Your task to perform on an android device: toggle translation in the chrome app Image 0: 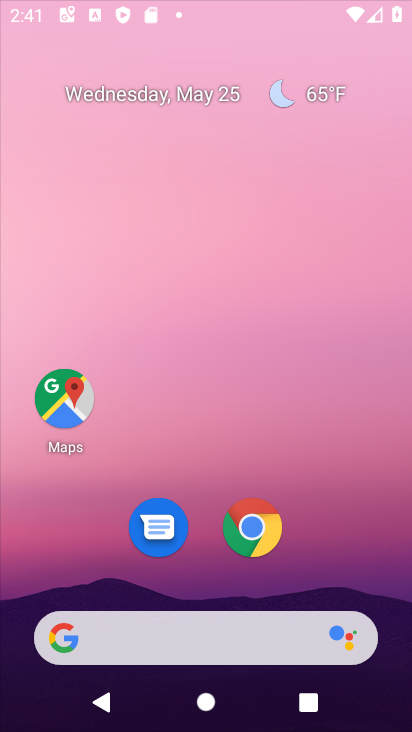
Step 0: press home button
Your task to perform on an android device: toggle translation in the chrome app Image 1: 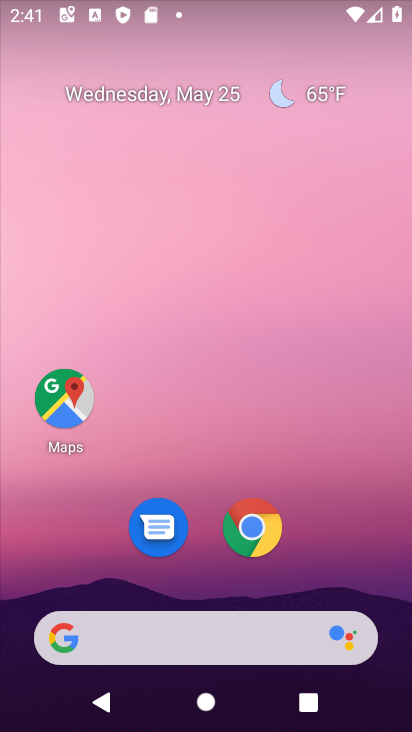
Step 1: drag from (302, 563) to (288, 96)
Your task to perform on an android device: toggle translation in the chrome app Image 2: 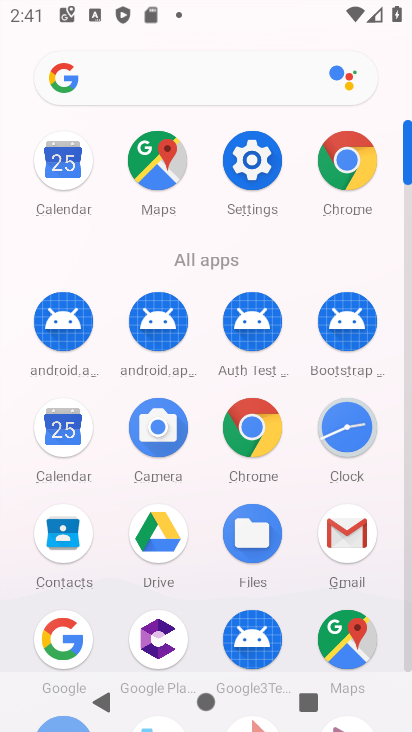
Step 2: click (257, 437)
Your task to perform on an android device: toggle translation in the chrome app Image 3: 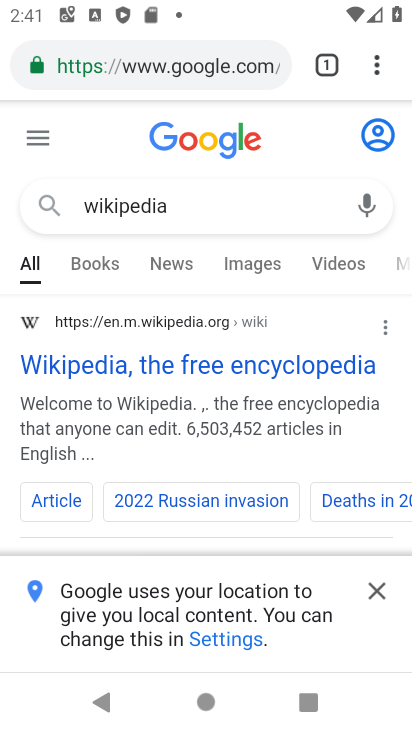
Step 3: click (384, 60)
Your task to perform on an android device: toggle translation in the chrome app Image 4: 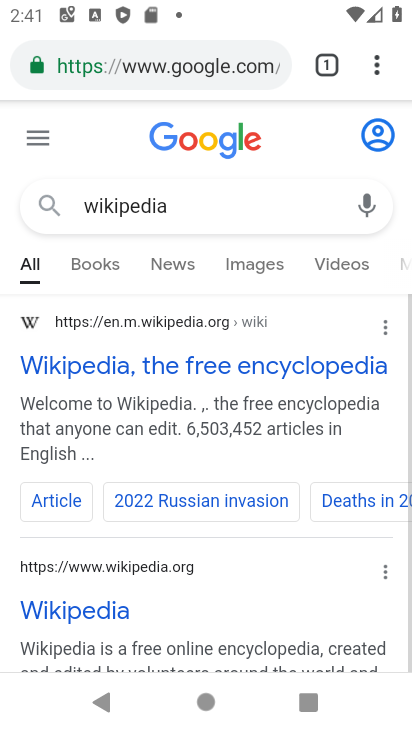
Step 4: drag from (371, 57) to (186, 579)
Your task to perform on an android device: toggle translation in the chrome app Image 5: 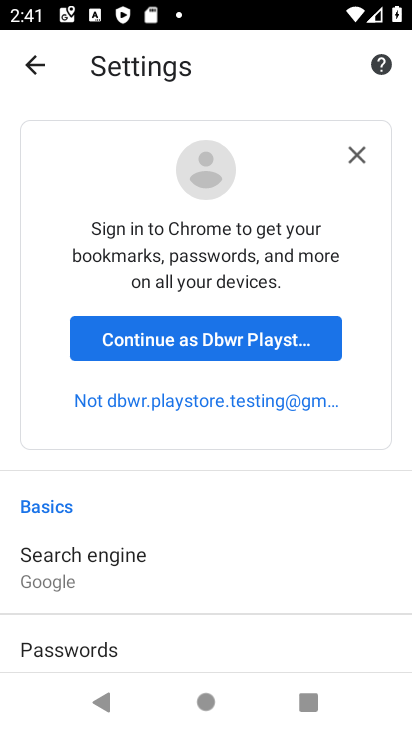
Step 5: drag from (199, 630) to (269, 9)
Your task to perform on an android device: toggle translation in the chrome app Image 6: 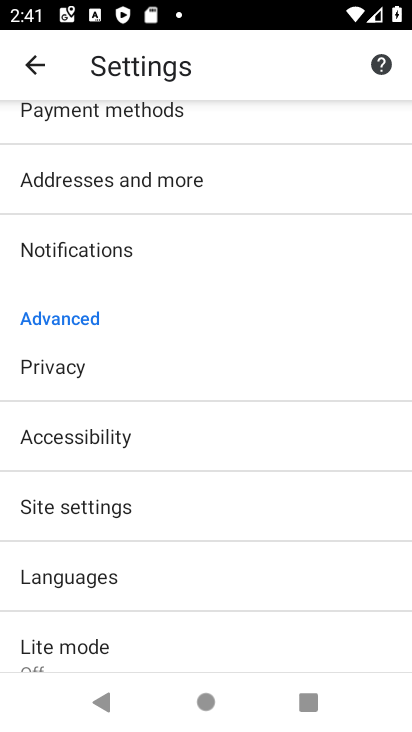
Step 6: drag from (220, 496) to (259, 82)
Your task to perform on an android device: toggle translation in the chrome app Image 7: 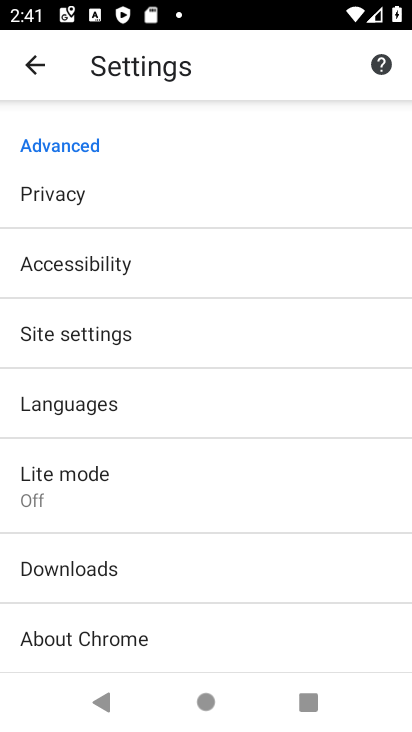
Step 7: click (95, 408)
Your task to perform on an android device: toggle translation in the chrome app Image 8: 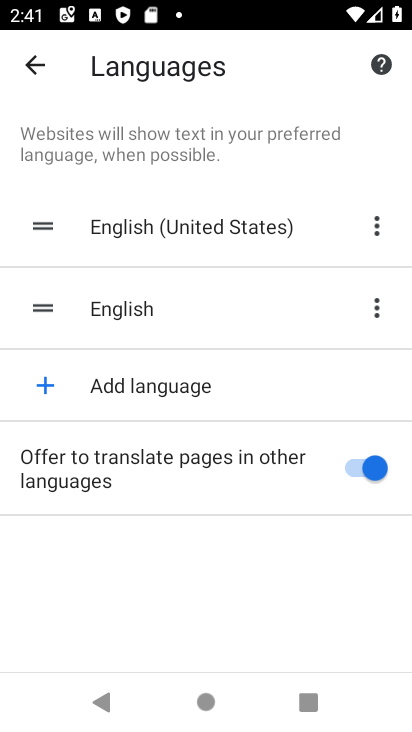
Step 8: click (354, 459)
Your task to perform on an android device: toggle translation in the chrome app Image 9: 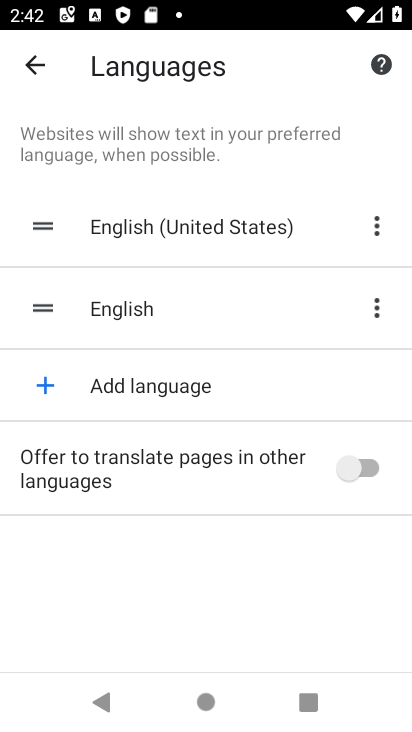
Step 9: task complete